Your task to perform on an android device: Go to accessibility settings Image 0: 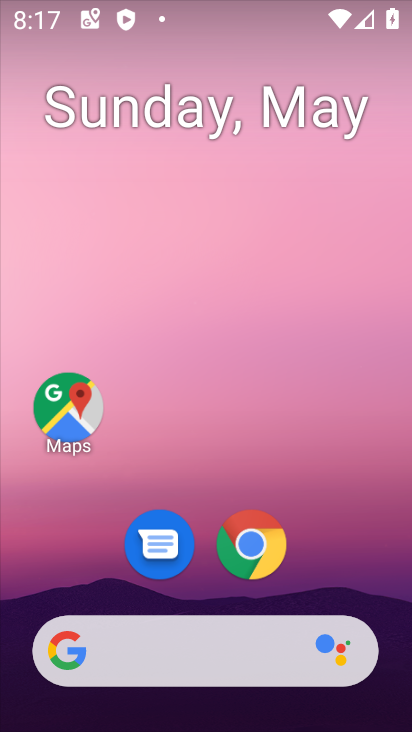
Step 0: drag from (365, 544) to (242, 11)
Your task to perform on an android device: Go to accessibility settings Image 1: 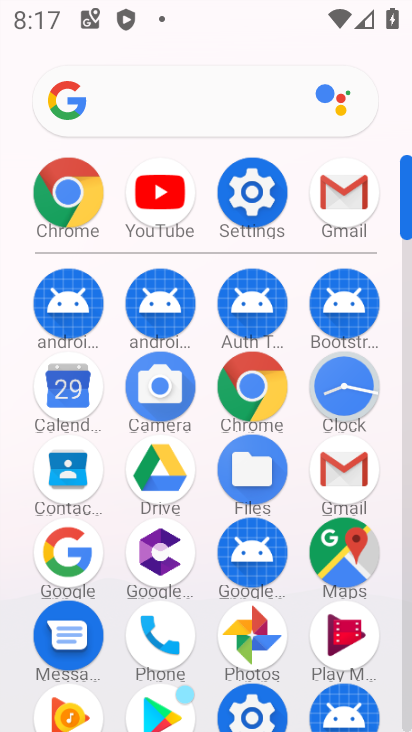
Step 1: drag from (17, 541) to (8, 261)
Your task to perform on an android device: Go to accessibility settings Image 2: 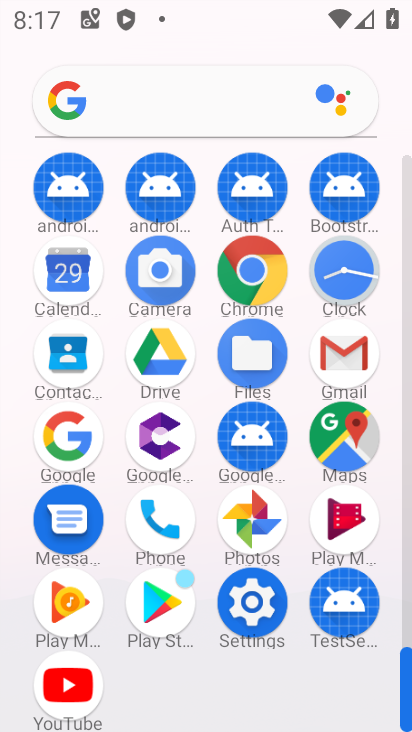
Step 2: click (255, 594)
Your task to perform on an android device: Go to accessibility settings Image 3: 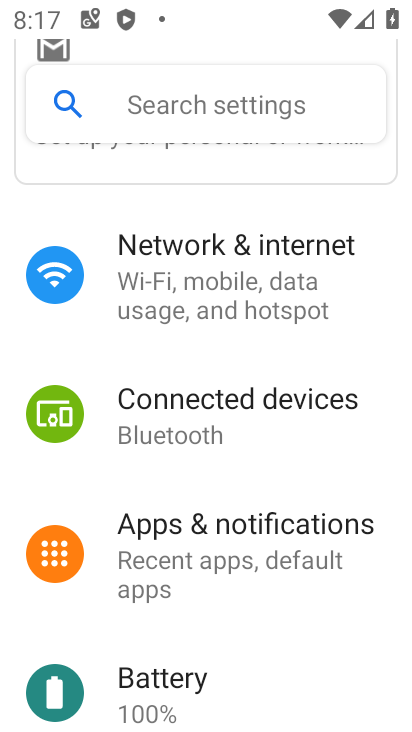
Step 3: drag from (224, 602) to (213, 239)
Your task to perform on an android device: Go to accessibility settings Image 4: 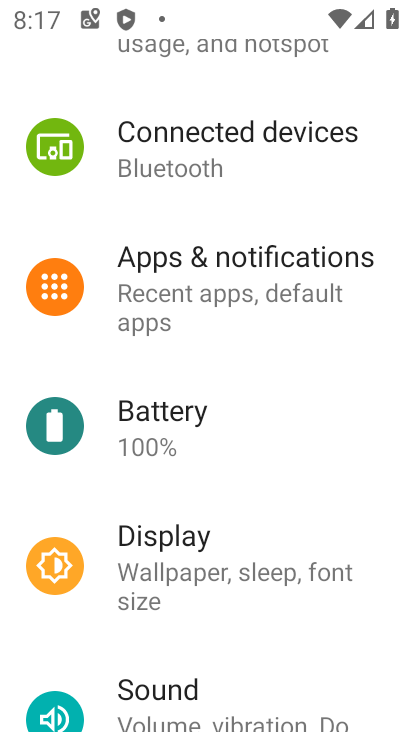
Step 4: drag from (267, 596) to (266, 158)
Your task to perform on an android device: Go to accessibility settings Image 5: 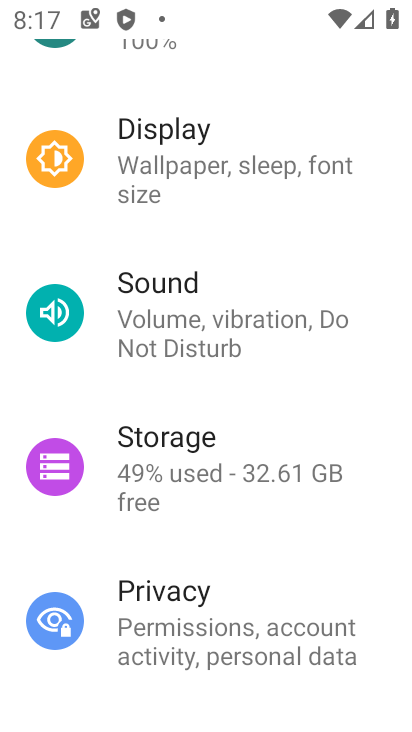
Step 5: drag from (246, 542) to (258, 65)
Your task to perform on an android device: Go to accessibility settings Image 6: 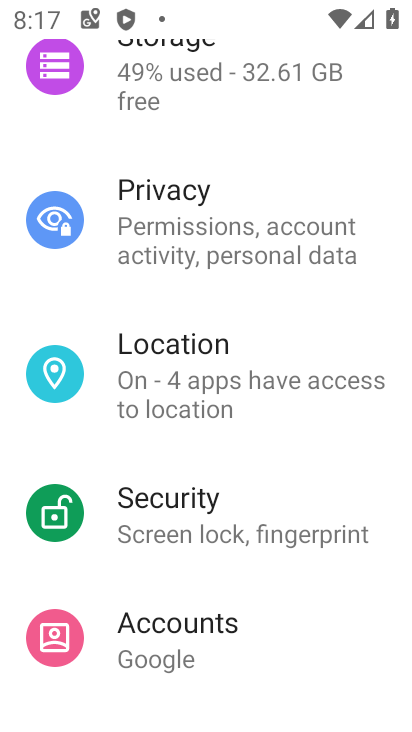
Step 6: drag from (247, 581) to (286, 78)
Your task to perform on an android device: Go to accessibility settings Image 7: 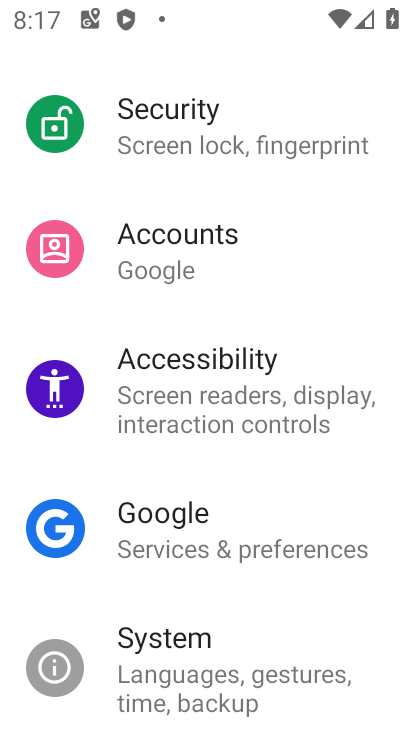
Step 7: drag from (189, 589) to (267, 169)
Your task to perform on an android device: Go to accessibility settings Image 8: 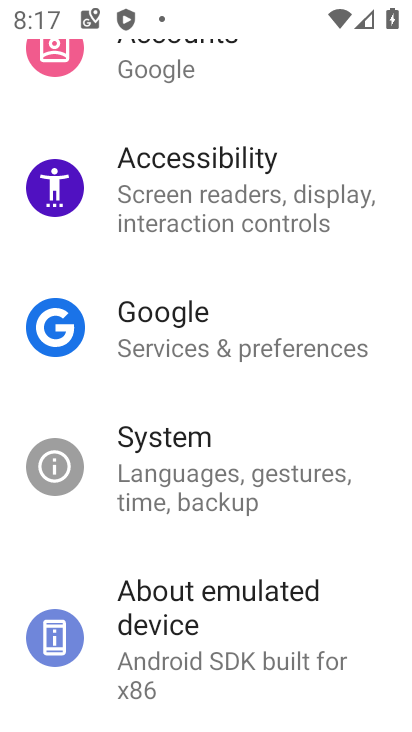
Step 8: click (189, 189)
Your task to perform on an android device: Go to accessibility settings Image 9: 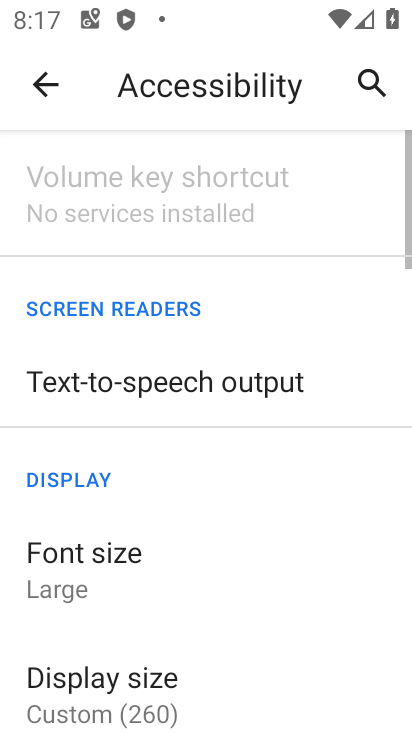
Step 9: task complete